Your task to perform on an android device: find which apps use the phone's location Image 0: 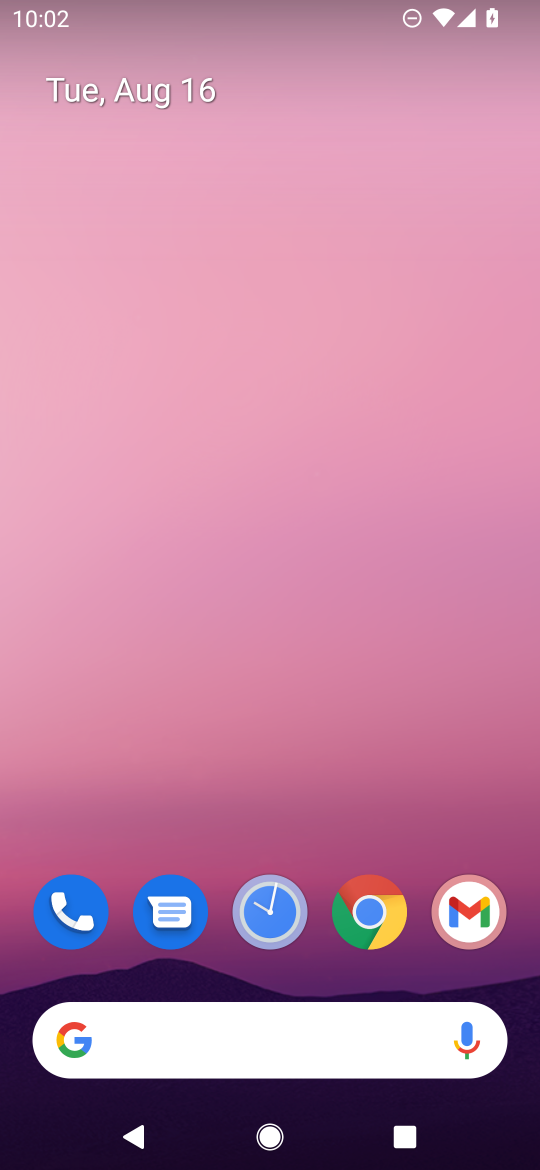
Step 0: drag from (320, 853) to (335, 37)
Your task to perform on an android device: find which apps use the phone's location Image 1: 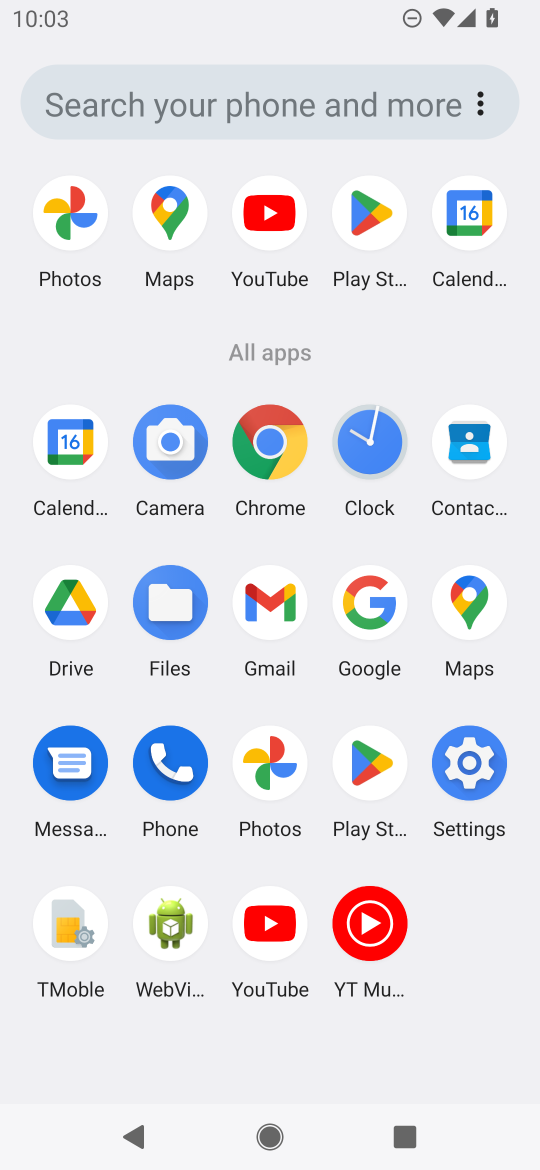
Step 1: click (497, 752)
Your task to perform on an android device: find which apps use the phone's location Image 2: 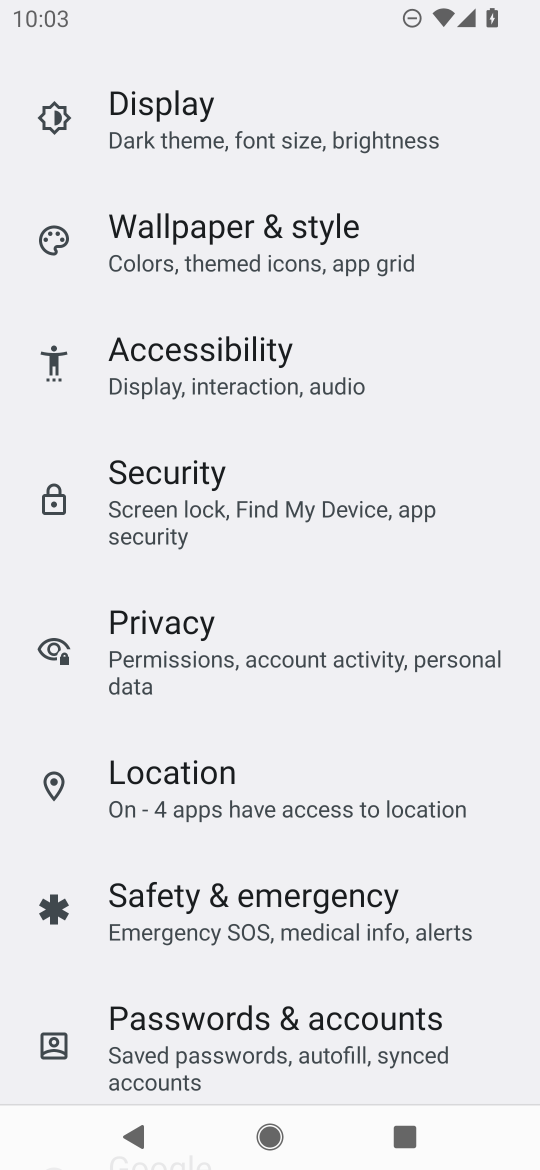
Step 2: click (124, 770)
Your task to perform on an android device: find which apps use the phone's location Image 3: 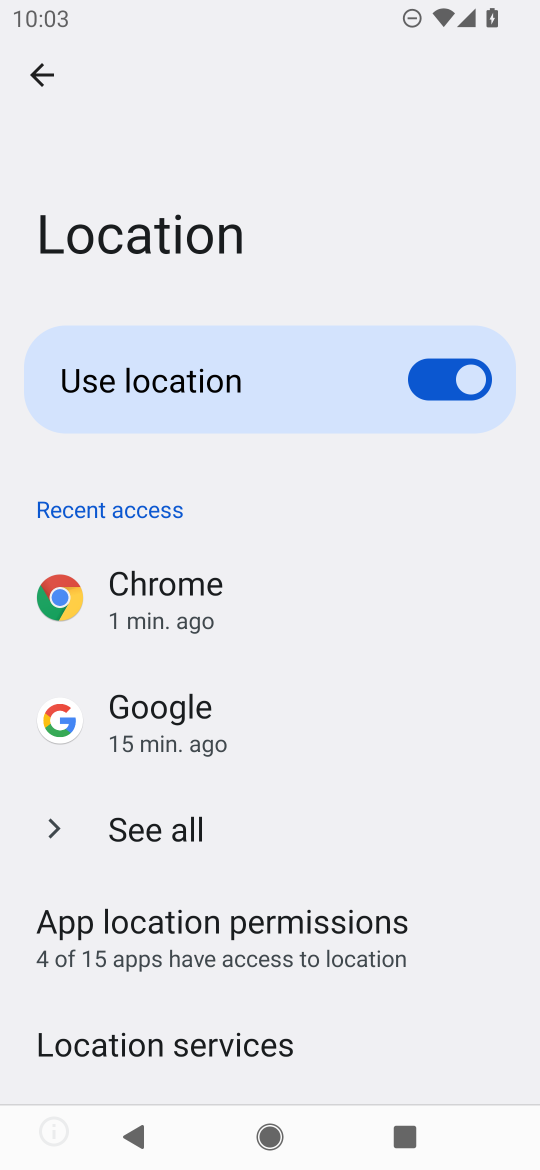
Step 3: click (198, 839)
Your task to perform on an android device: find which apps use the phone's location Image 4: 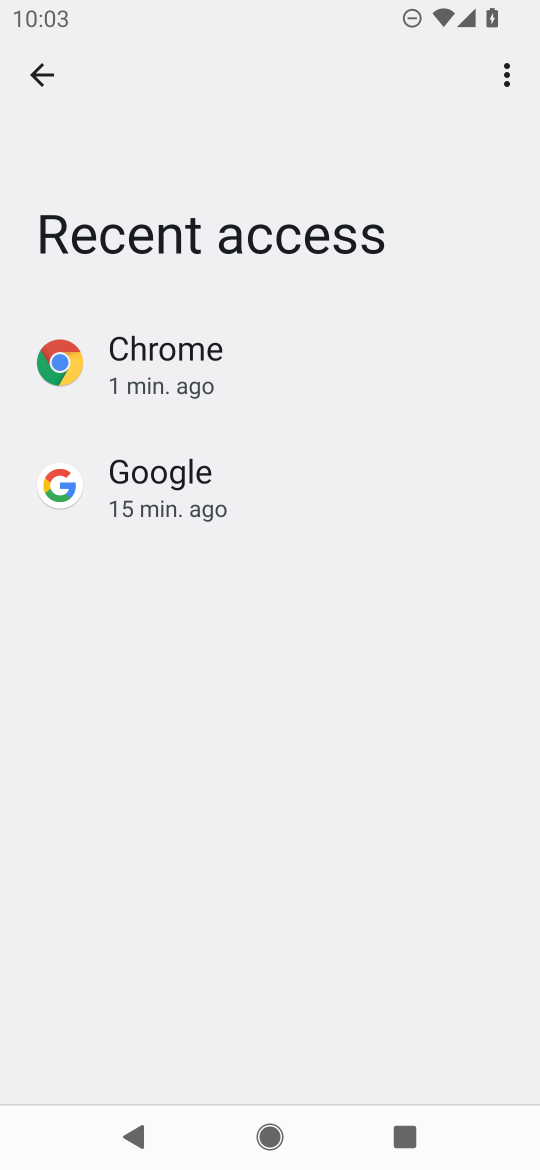
Step 4: task complete